Your task to perform on an android device: What's a good restaurant in Miami? Image 0: 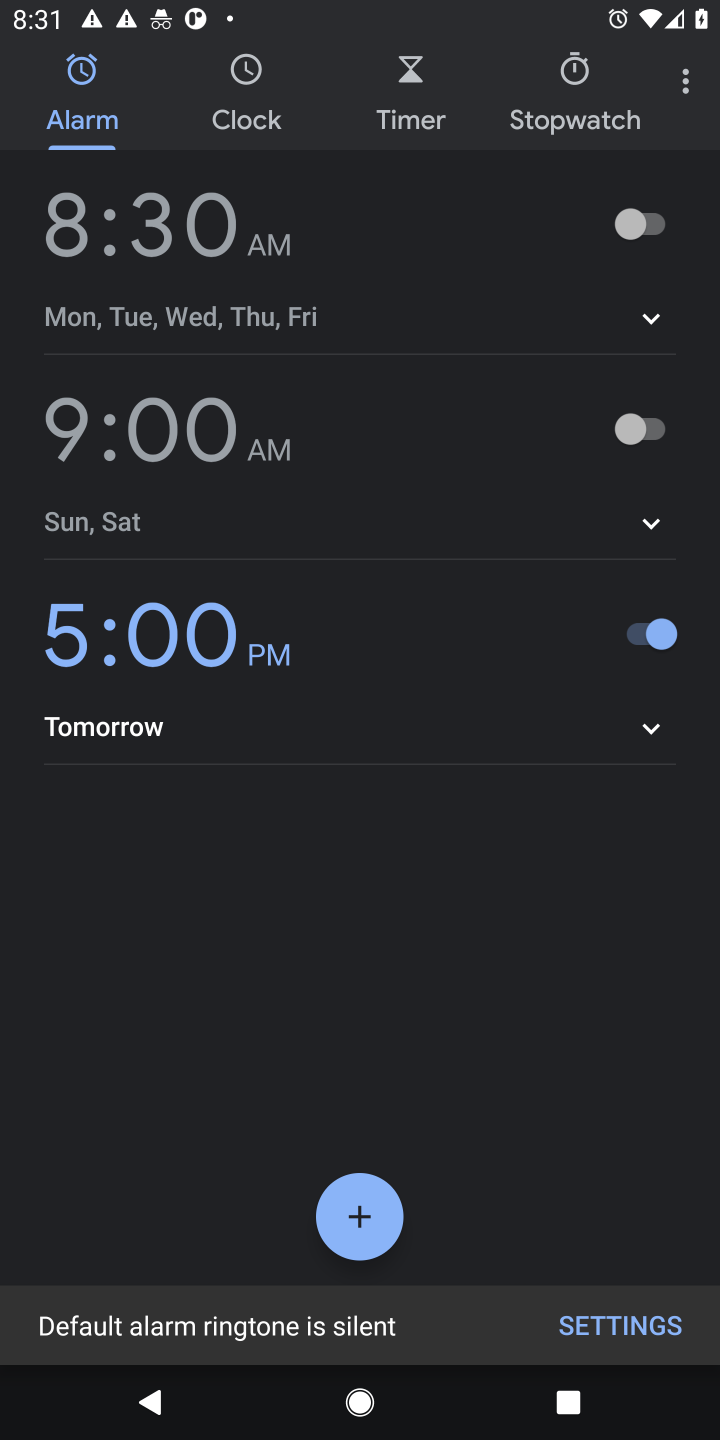
Step 0: press home button
Your task to perform on an android device: What's a good restaurant in Miami? Image 1: 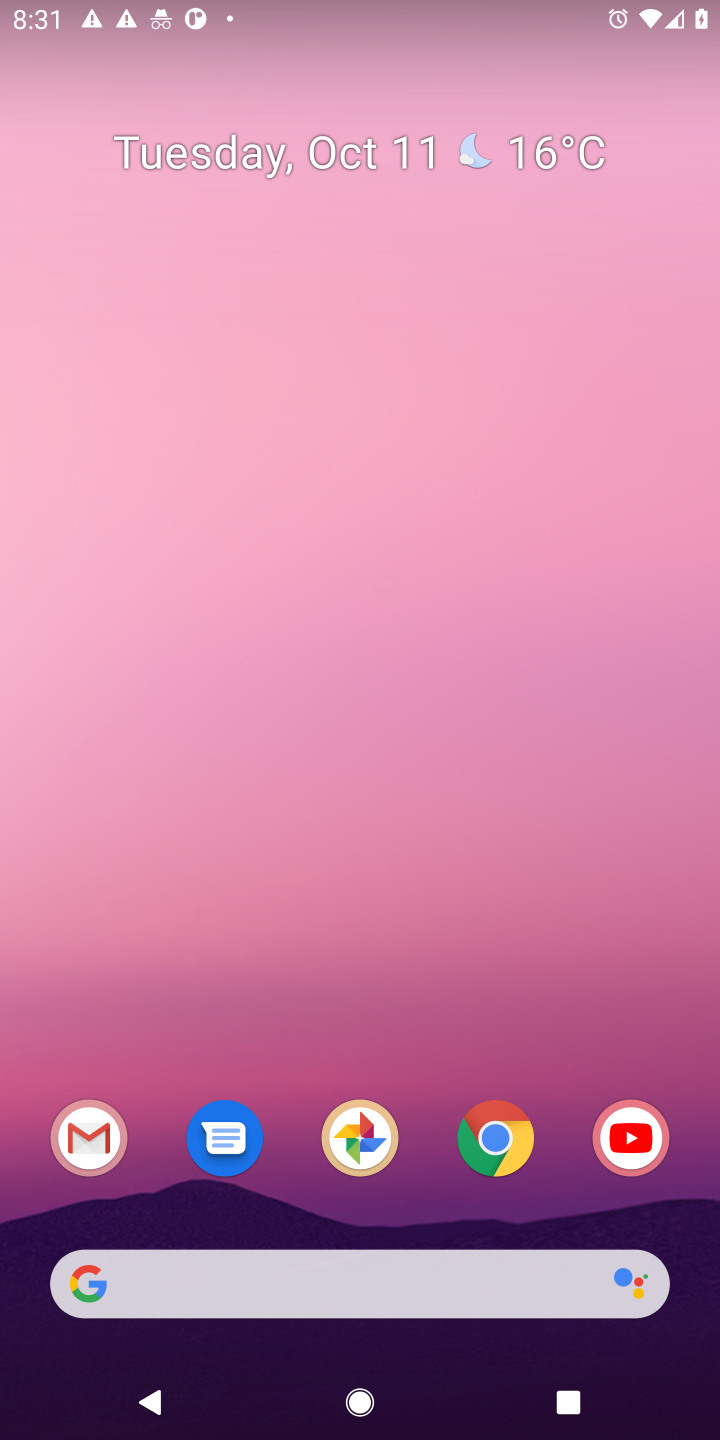
Step 1: click (350, 1276)
Your task to perform on an android device: What's a good restaurant in Miami? Image 2: 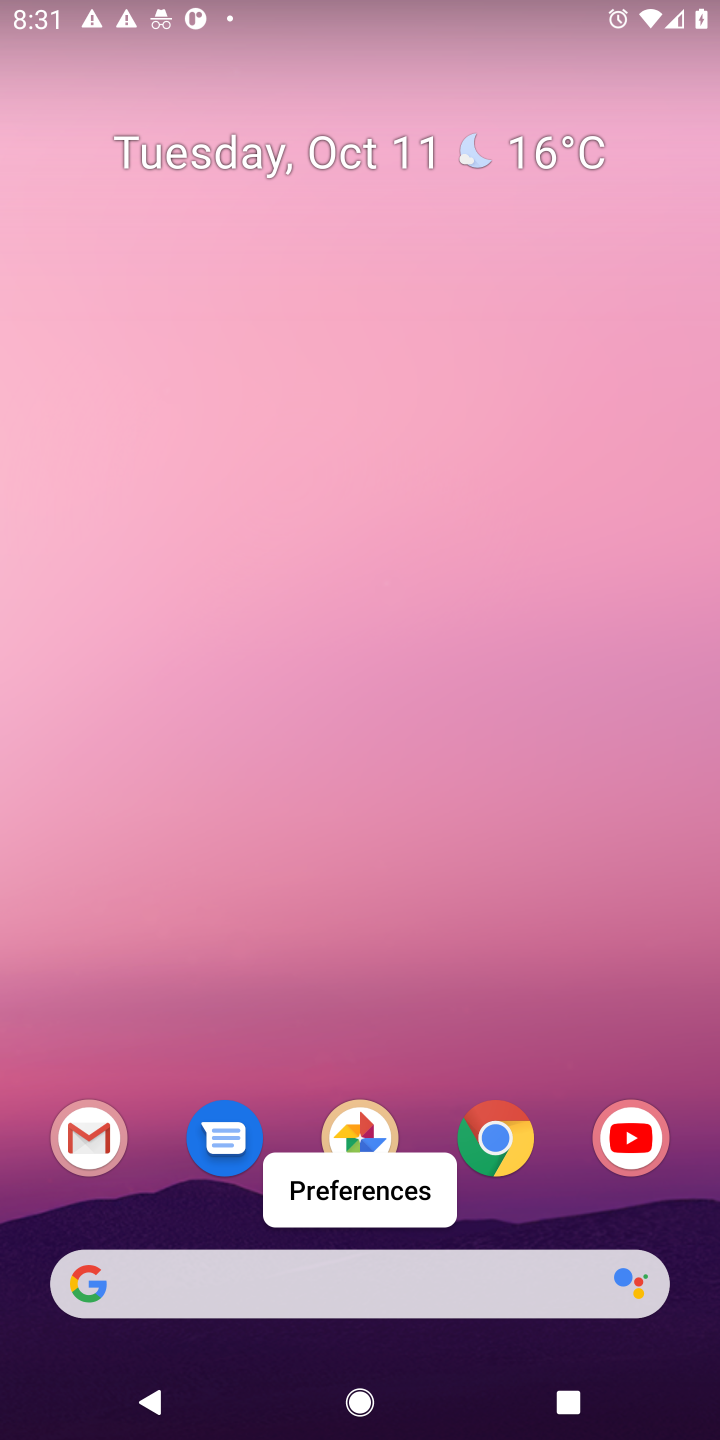
Step 2: click (113, 1297)
Your task to perform on an android device: What's a good restaurant in Miami? Image 3: 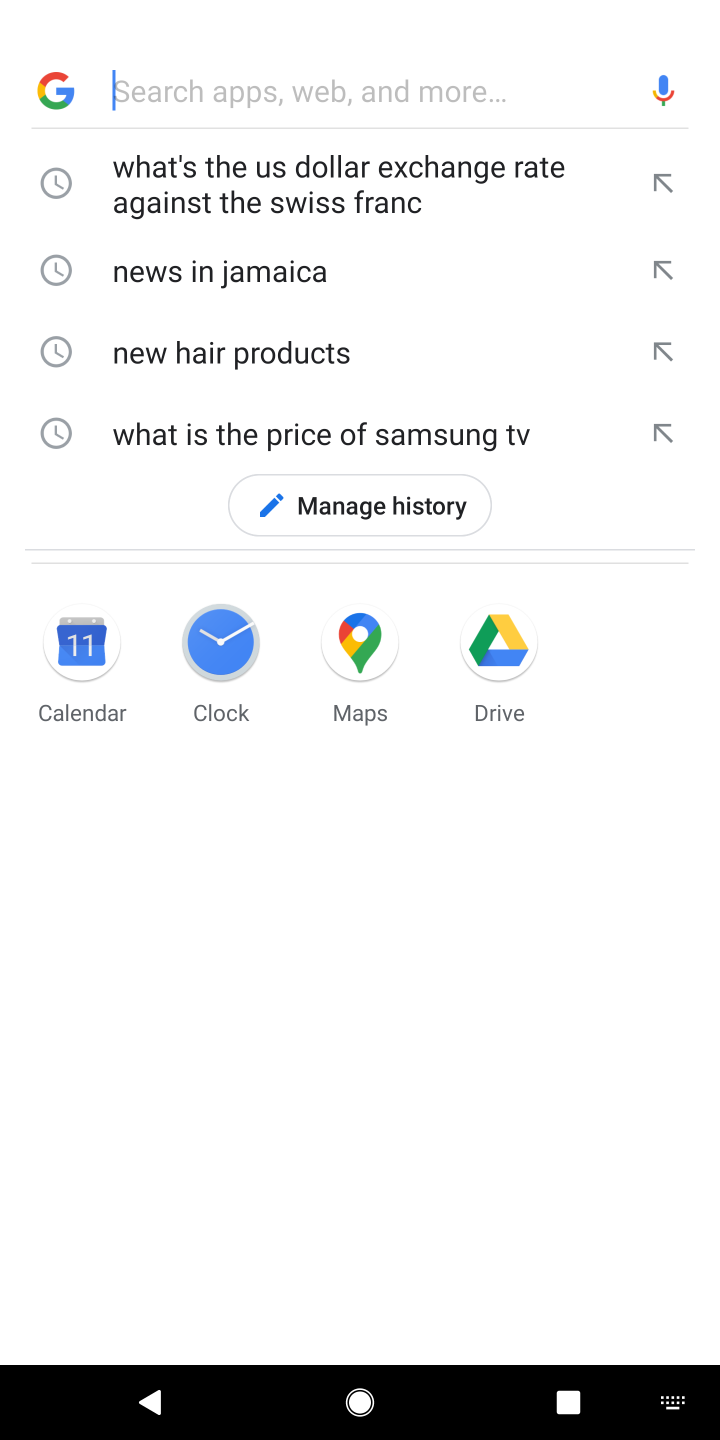
Step 3: type "good restaurant in miami?"
Your task to perform on an android device: What's a good restaurant in Miami? Image 4: 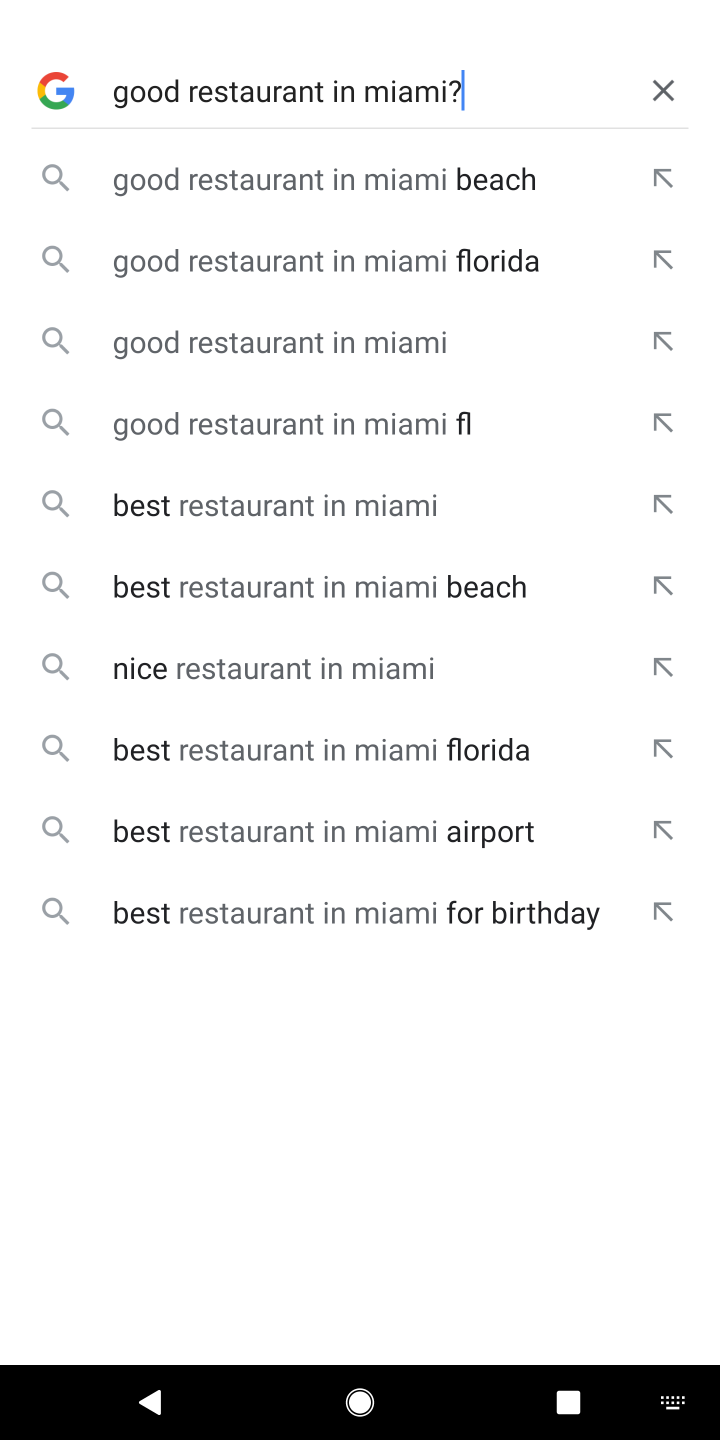
Step 4: click (260, 80)
Your task to perform on an android device: What's a good restaurant in Miami? Image 5: 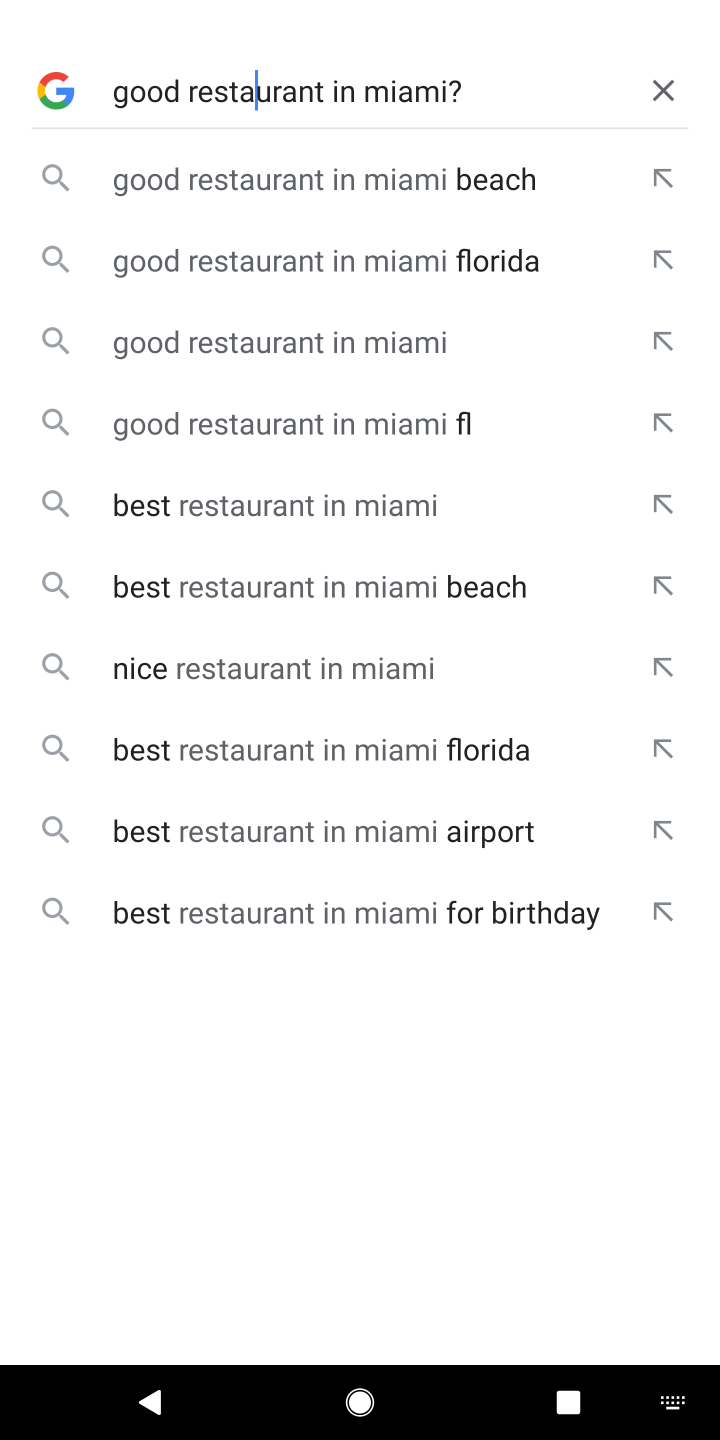
Step 5: click (337, 340)
Your task to perform on an android device: What's a good restaurant in Miami? Image 6: 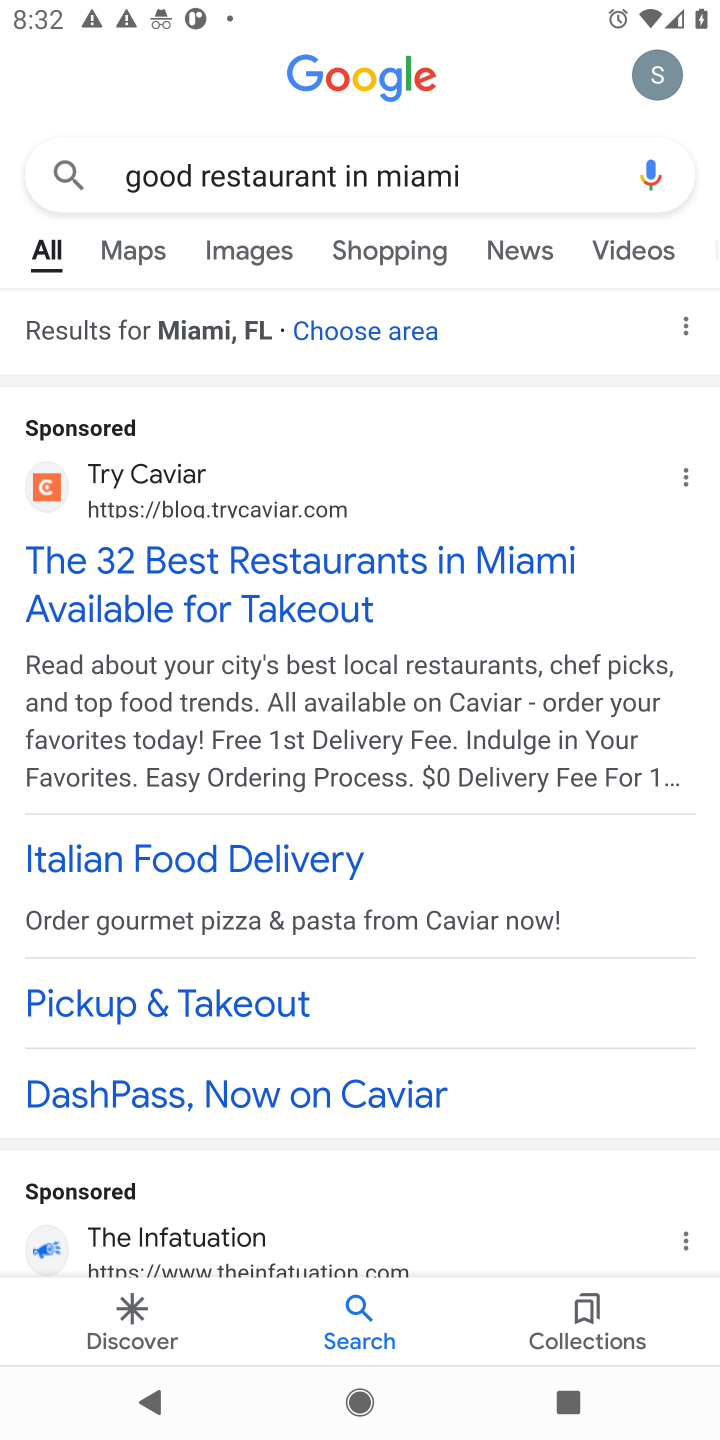
Step 6: click (272, 571)
Your task to perform on an android device: What's a good restaurant in Miami? Image 7: 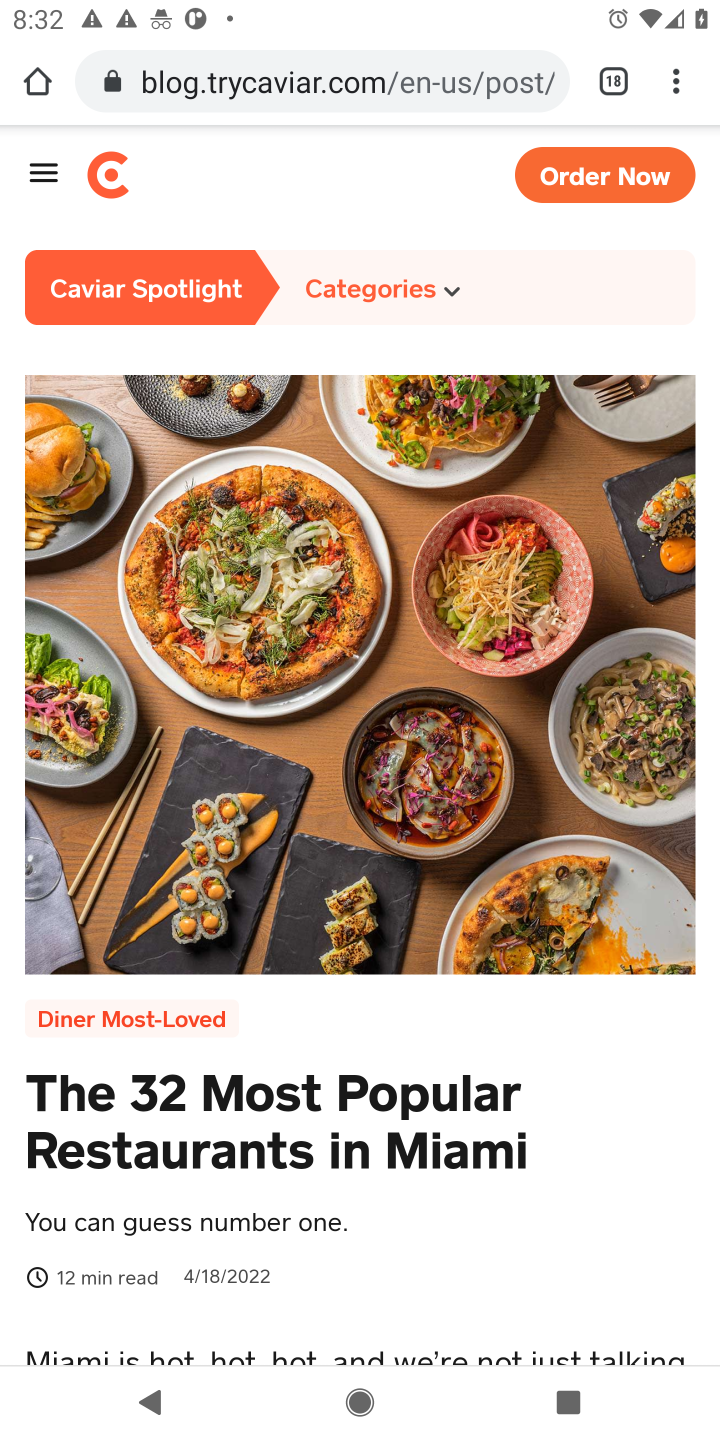
Step 7: task complete